Your task to perform on an android device: Search for vegetarian restaurants on Maps Image 0: 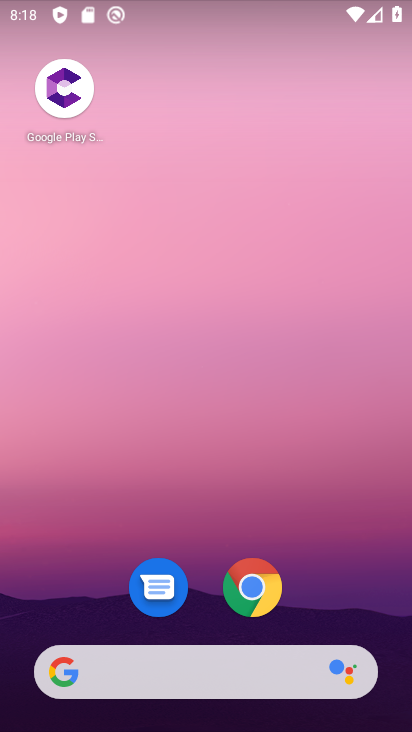
Step 0: drag from (338, 498) to (55, 0)
Your task to perform on an android device: Search for vegetarian restaurants on Maps Image 1: 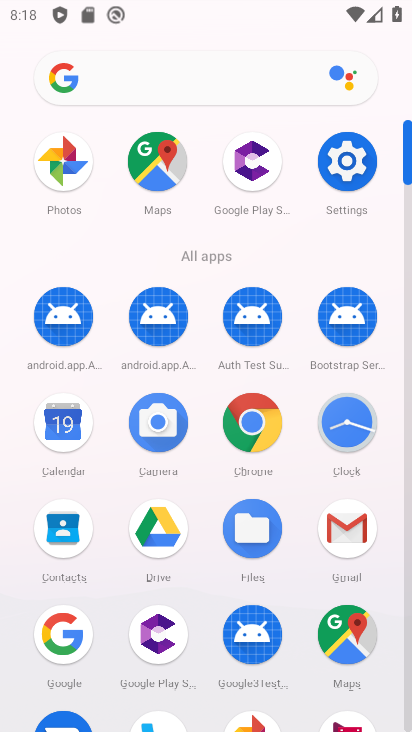
Step 1: drag from (16, 510) to (16, 168)
Your task to perform on an android device: Search for vegetarian restaurants on Maps Image 2: 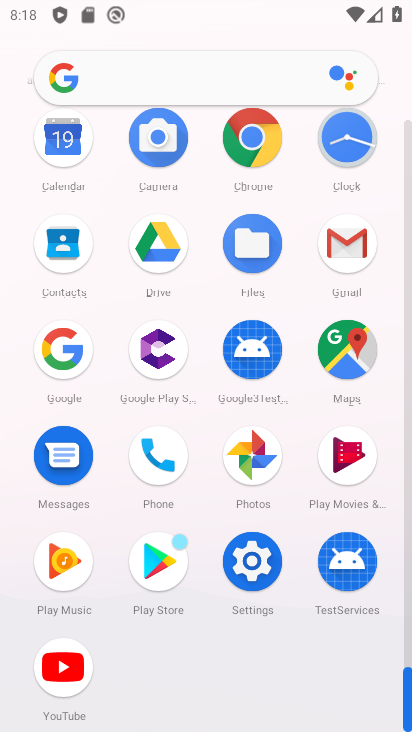
Step 2: click (349, 343)
Your task to perform on an android device: Search for vegetarian restaurants on Maps Image 3: 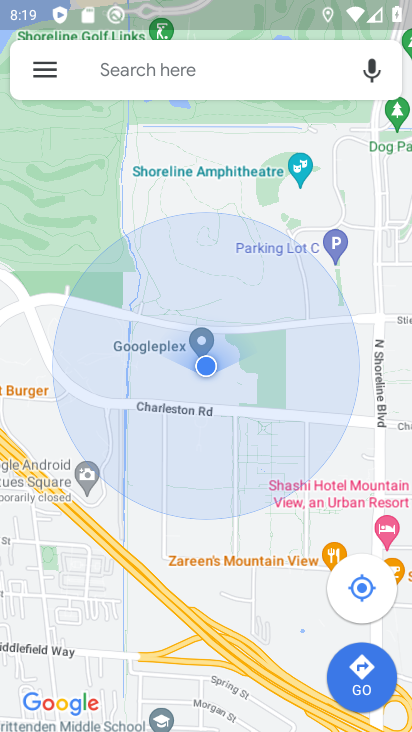
Step 3: click (235, 64)
Your task to perform on an android device: Search for vegetarian restaurants on Maps Image 4: 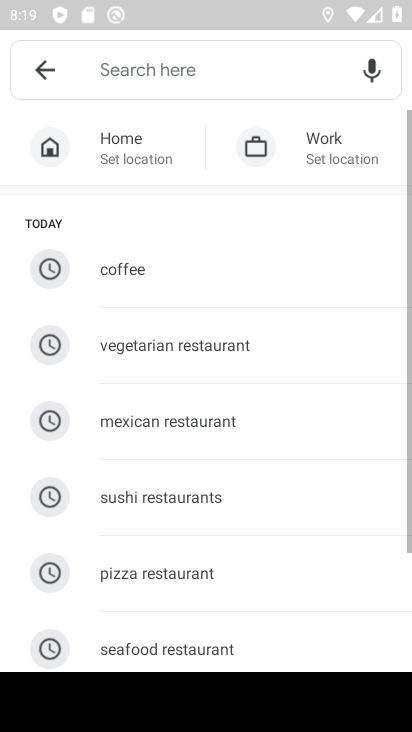
Step 4: click (215, 350)
Your task to perform on an android device: Search for vegetarian restaurants on Maps Image 5: 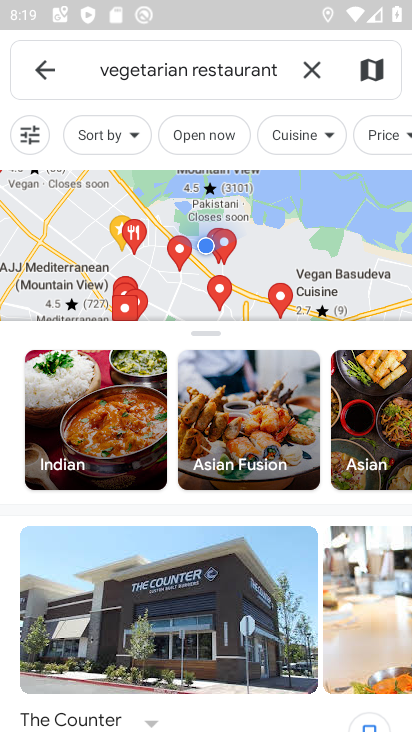
Step 5: task complete